Your task to perform on an android device: make emails show in primary in the gmail app Image 0: 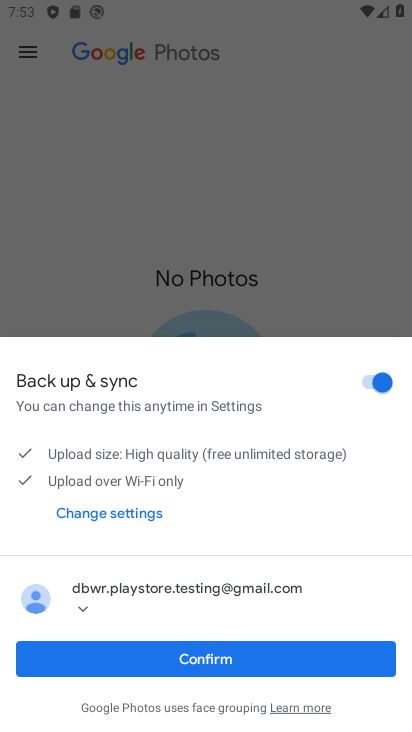
Step 0: press home button
Your task to perform on an android device: make emails show in primary in the gmail app Image 1: 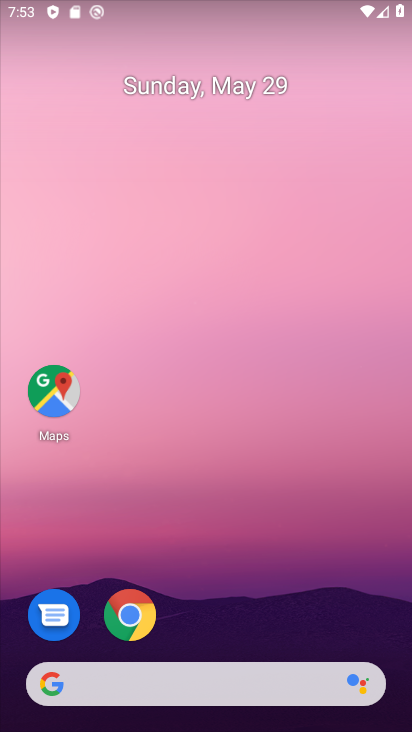
Step 1: drag from (326, 593) to (282, 148)
Your task to perform on an android device: make emails show in primary in the gmail app Image 2: 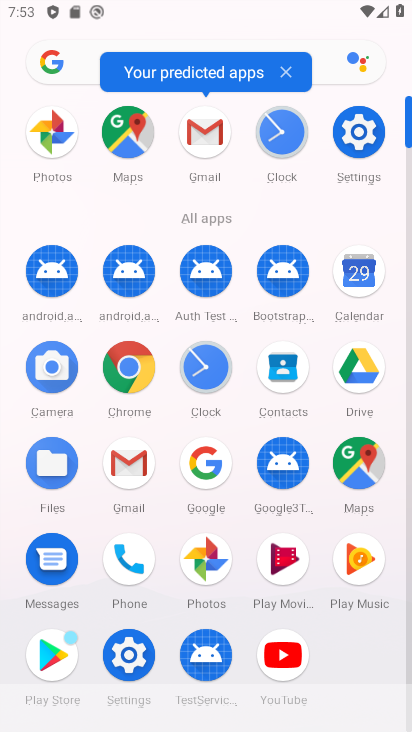
Step 2: click (199, 134)
Your task to perform on an android device: make emails show in primary in the gmail app Image 3: 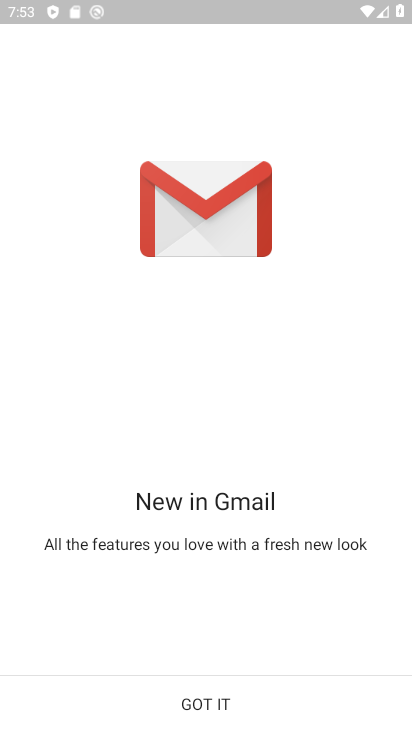
Step 3: click (188, 708)
Your task to perform on an android device: make emails show in primary in the gmail app Image 4: 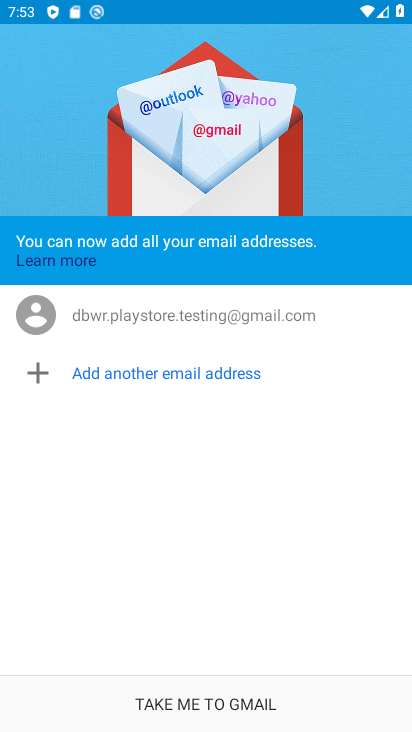
Step 4: click (188, 703)
Your task to perform on an android device: make emails show in primary in the gmail app Image 5: 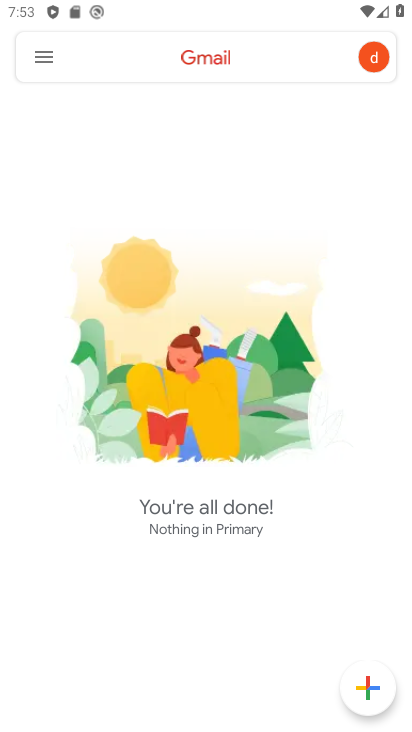
Step 5: click (46, 58)
Your task to perform on an android device: make emails show in primary in the gmail app Image 6: 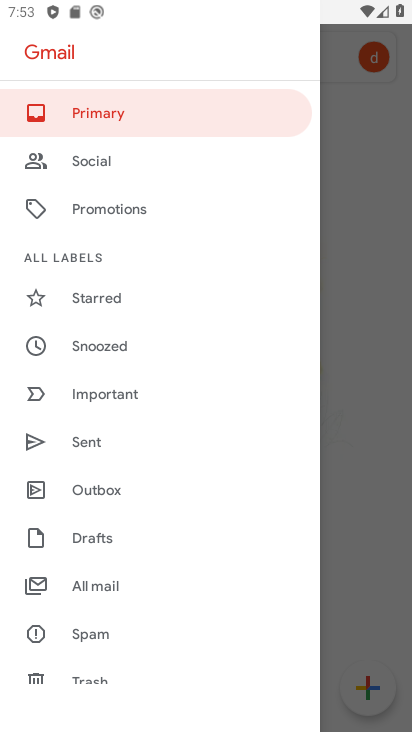
Step 6: click (97, 112)
Your task to perform on an android device: make emails show in primary in the gmail app Image 7: 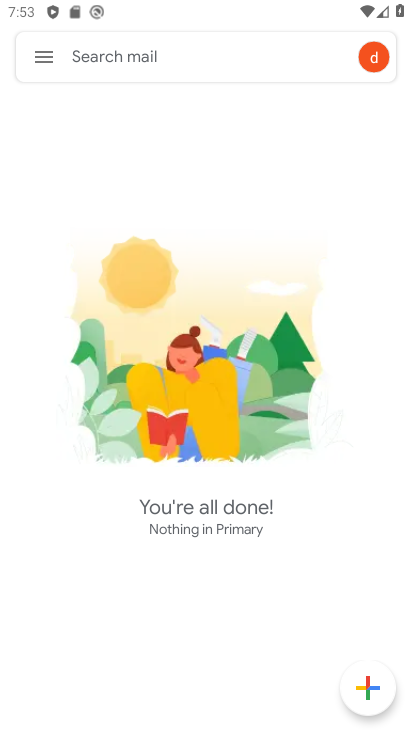
Step 7: task complete